Your task to perform on an android device: View the shopping cart on newegg.com. Search for logitech g903 on newegg.com, select the first entry, and add it to the cart. Image 0: 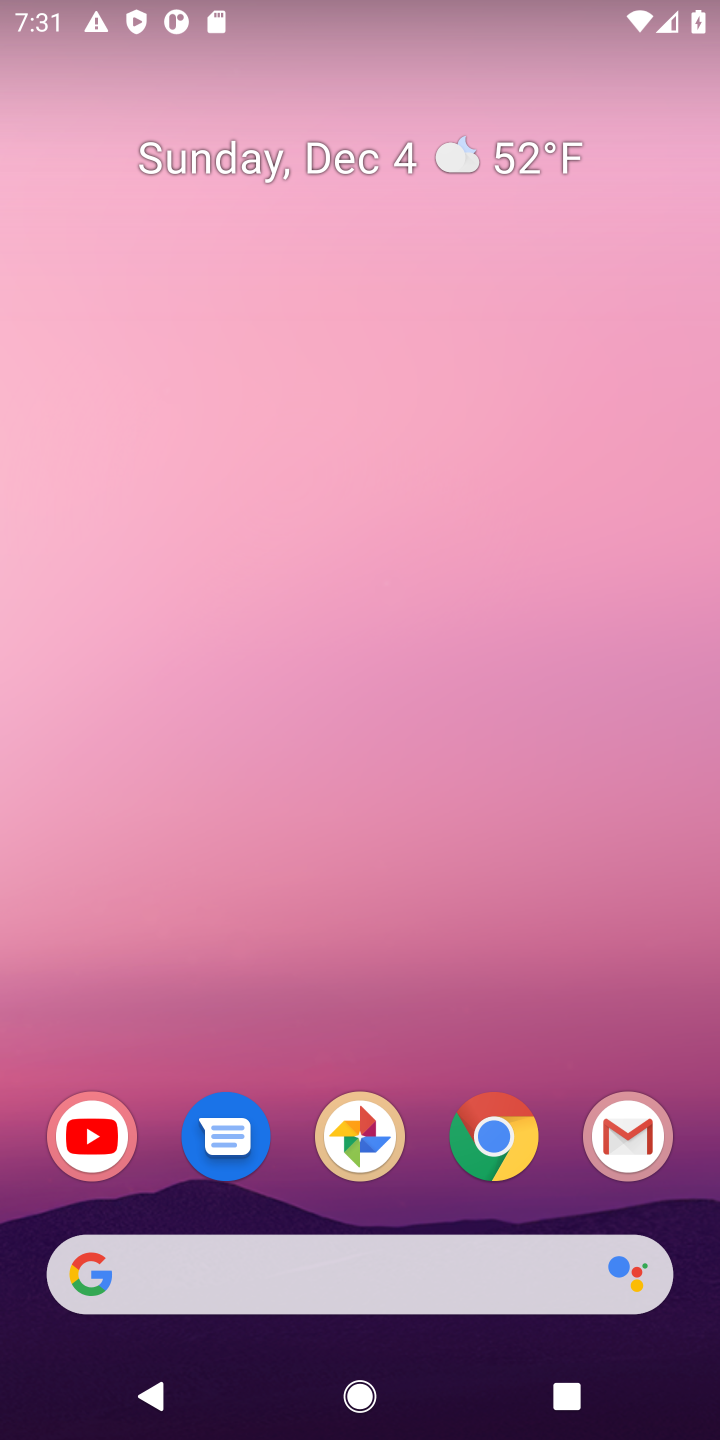
Step 0: click (500, 1134)
Your task to perform on an android device: View the shopping cart on newegg.com. Search for logitech g903 on newegg.com, select the first entry, and add it to the cart. Image 1: 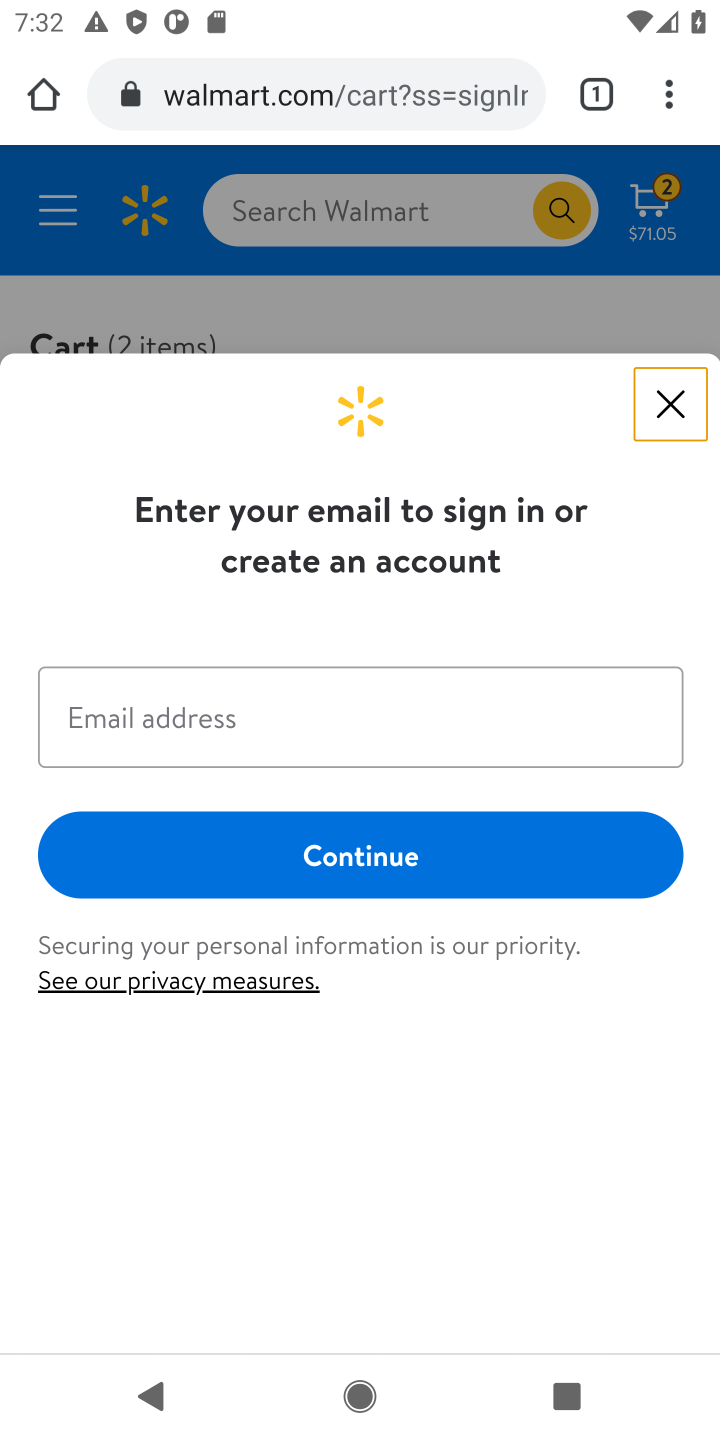
Step 1: click (291, 86)
Your task to perform on an android device: View the shopping cart on newegg.com. Search for logitech g903 on newegg.com, select the first entry, and add it to the cart. Image 2: 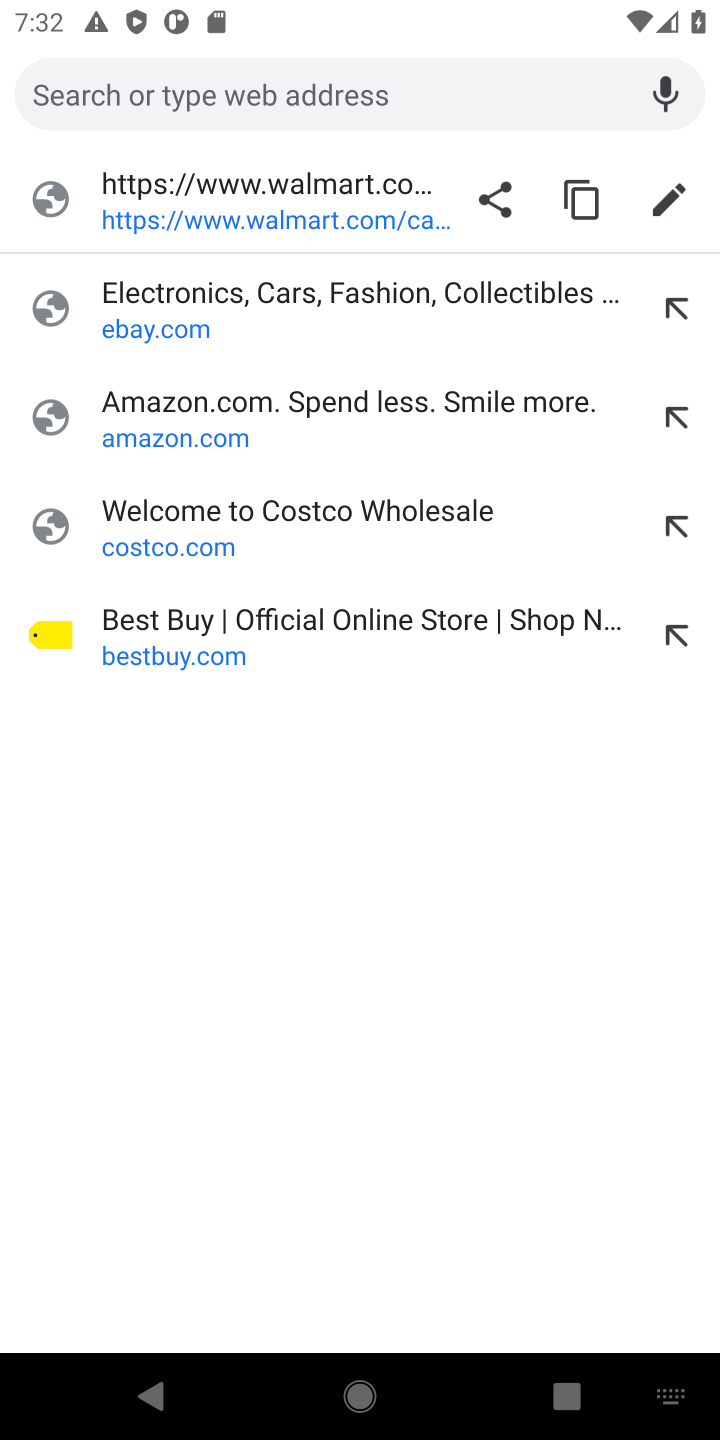
Step 2: type "newegg.com"
Your task to perform on an android device: View the shopping cart on newegg.com. Search for logitech g903 on newegg.com, select the first entry, and add it to the cart. Image 3: 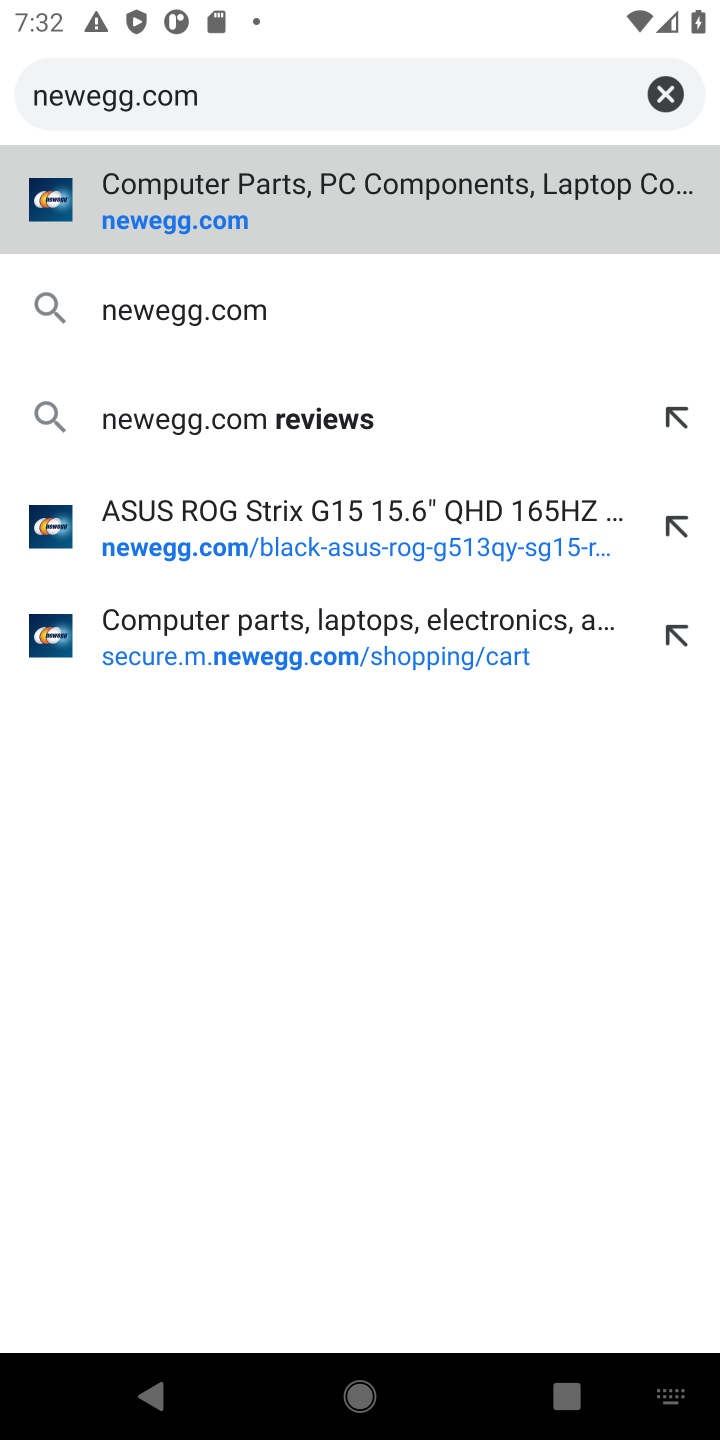
Step 3: click (134, 244)
Your task to perform on an android device: View the shopping cart on newegg.com. Search for logitech g903 on newegg.com, select the first entry, and add it to the cart. Image 4: 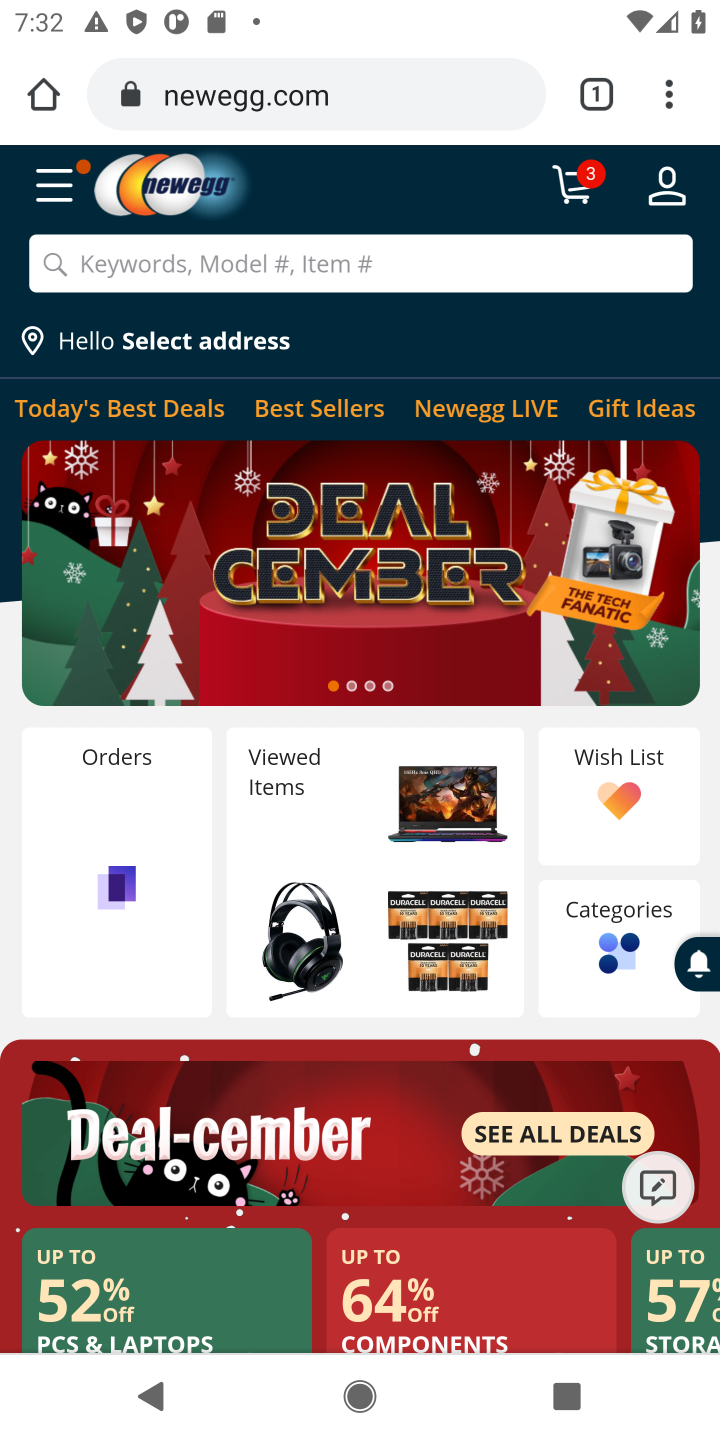
Step 4: click (572, 190)
Your task to perform on an android device: View the shopping cart on newegg.com. Search for logitech g903 on newegg.com, select the first entry, and add it to the cart. Image 5: 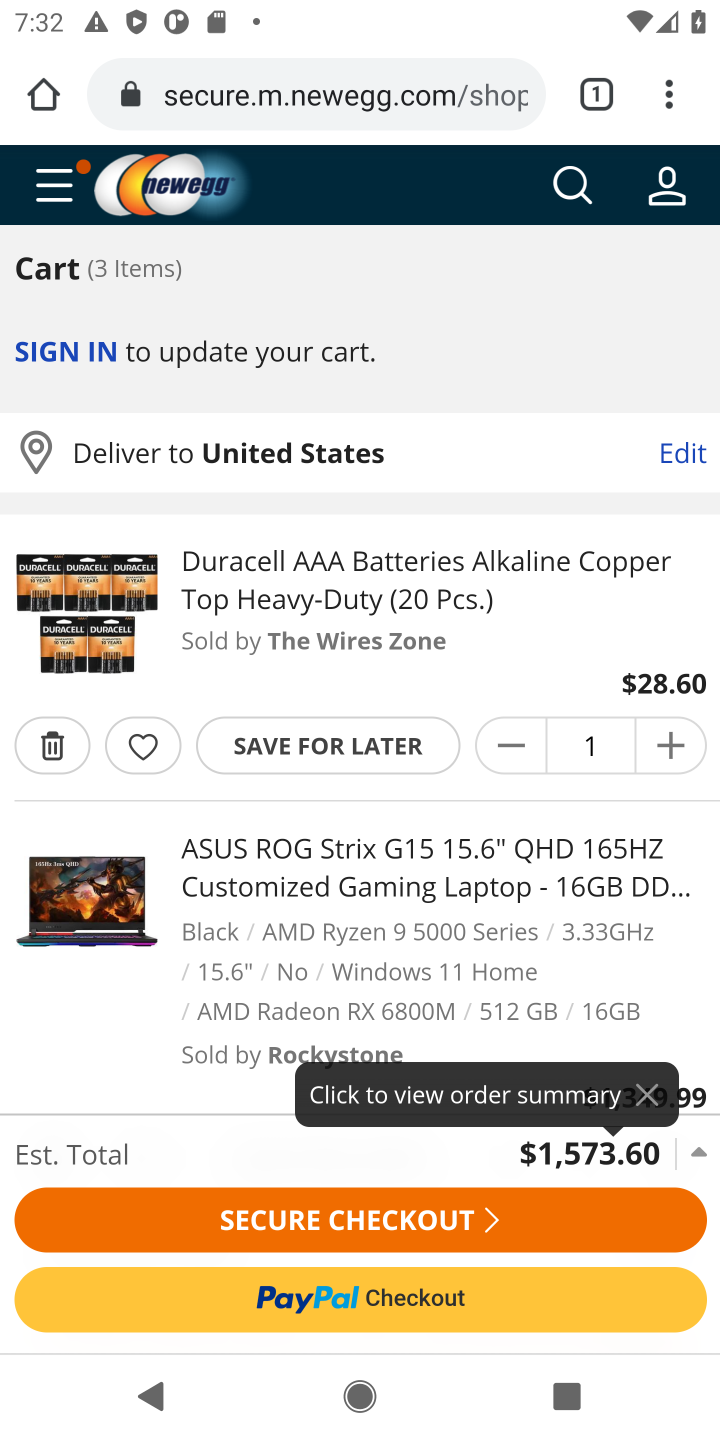
Step 5: click (563, 194)
Your task to perform on an android device: View the shopping cart on newegg.com. Search for logitech g903 on newegg.com, select the first entry, and add it to the cart. Image 6: 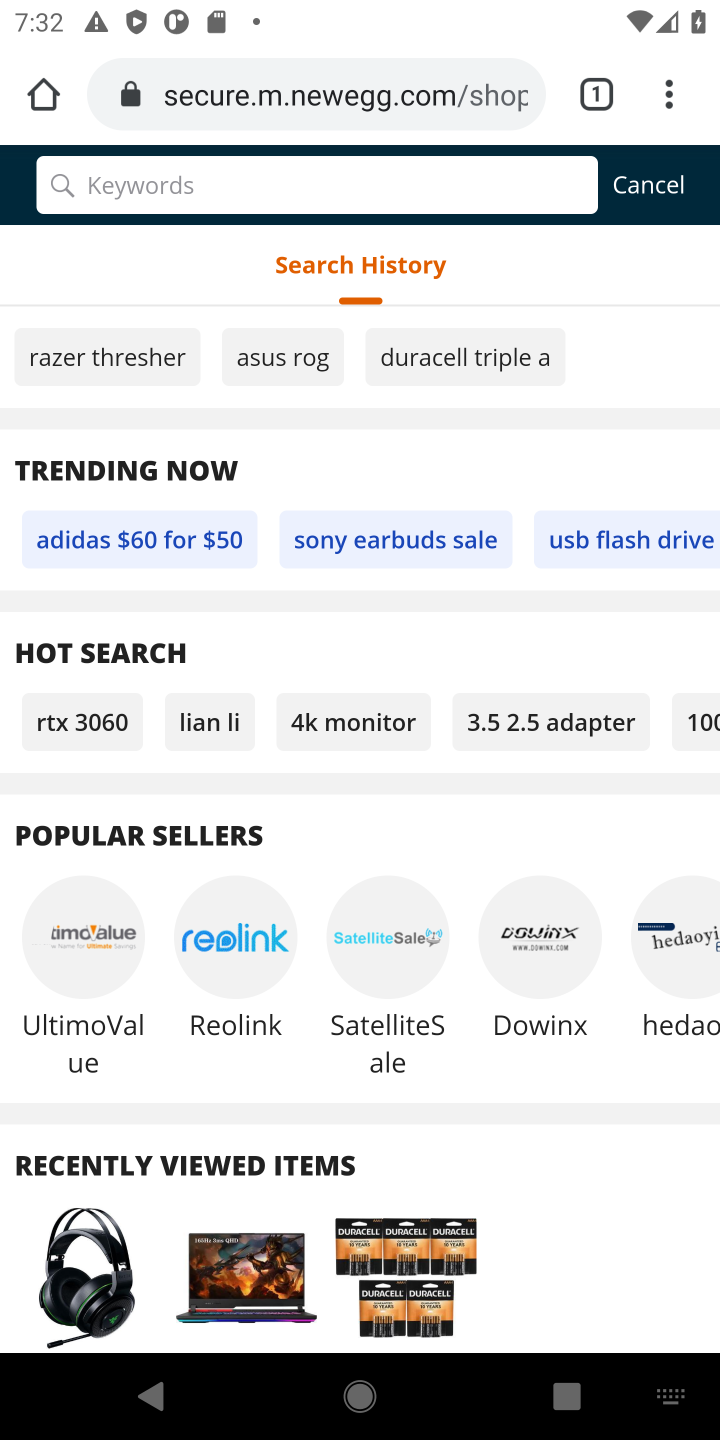
Step 6: type "logitech g903"
Your task to perform on an android device: View the shopping cart on newegg.com. Search for logitech g903 on newegg.com, select the first entry, and add it to the cart. Image 7: 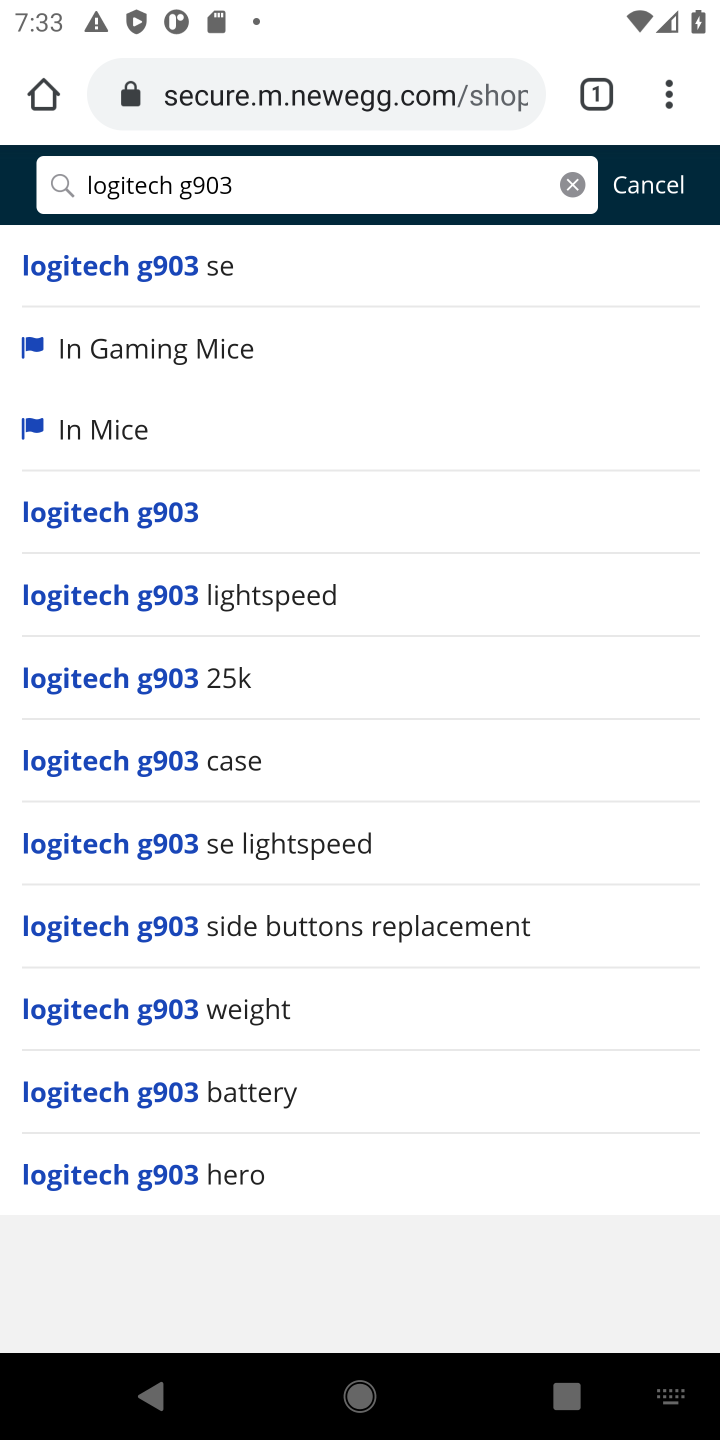
Step 7: click (123, 515)
Your task to perform on an android device: View the shopping cart on newegg.com. Search for logitech g903 on newegg.com, select the first entry, and add it to the cart. Image 8: 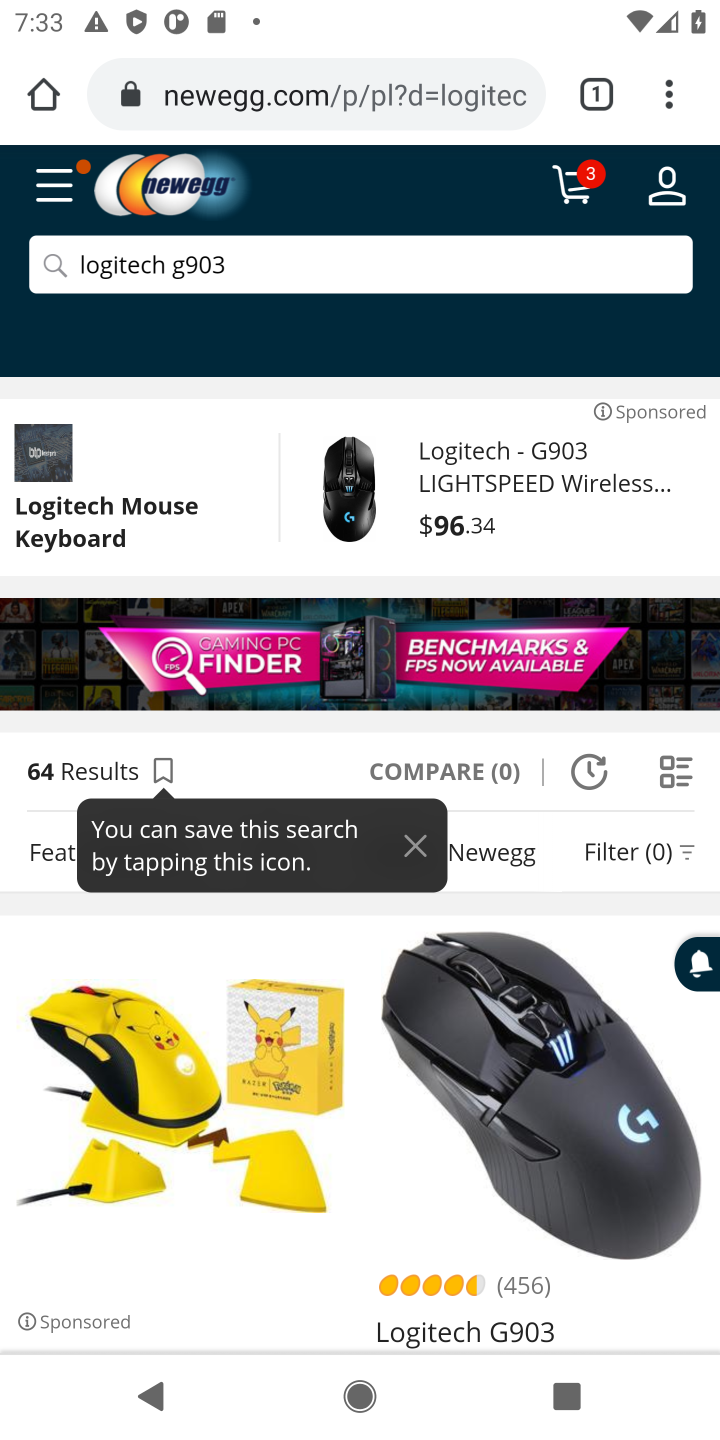
Step 8: task complete